Your task to perform on an android device: turn off smart reply in the gmail app Image 0: 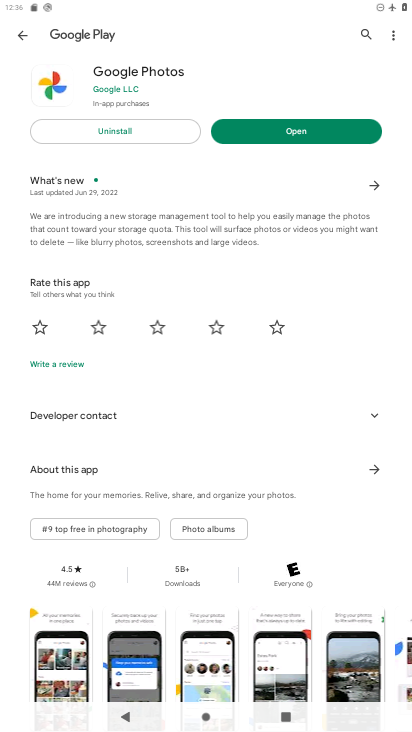
Step 0: press home button
Your task to perform on an android device: turn off smart reply in the gmail app Image 1: 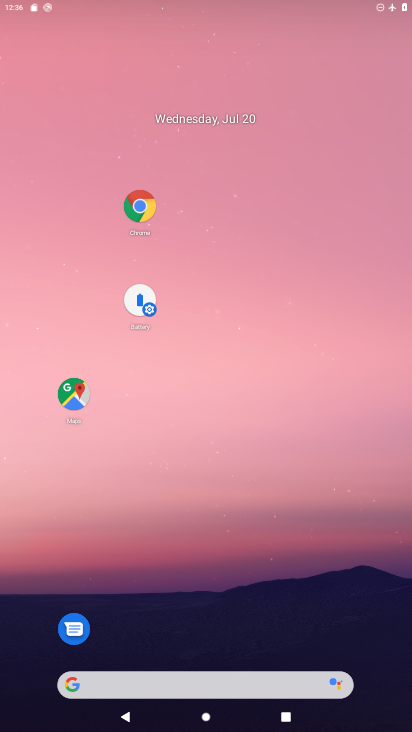
Step 1: drag from (188, 610) to (260, 112)
Your task to perform on an android device: turn off smart reply in the gmail app Image 2: 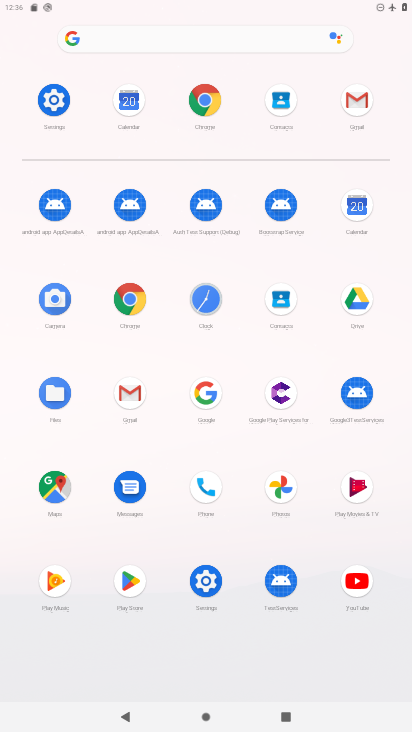
Step 2: click (122, 382)
Your task to perform on an android device: turn off smart reply in the gmail app Image 3: 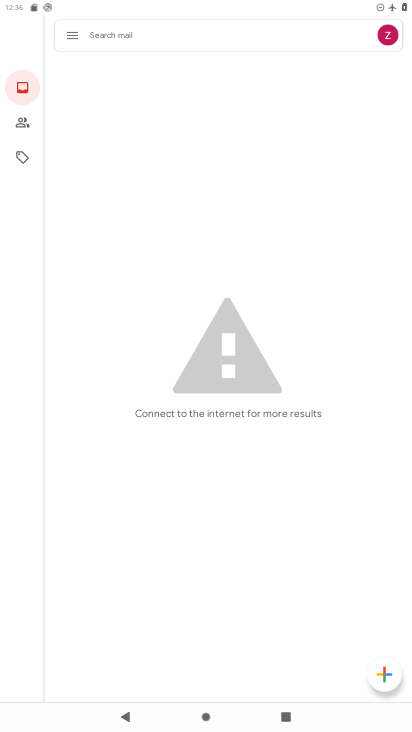
Step 3: click (71, 30)
Your task to perform on an android device: turn off smart reply in the gmail app Image 4: 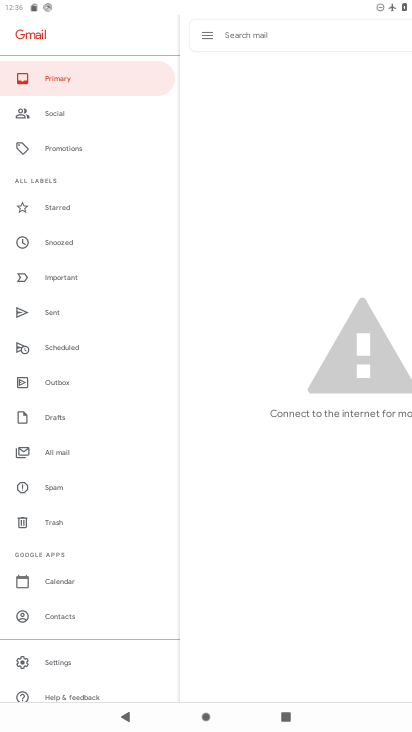
Step 4: click (64, 659)
Your task to perform on an android device: turn off smart reply in the gmail app Image 5: 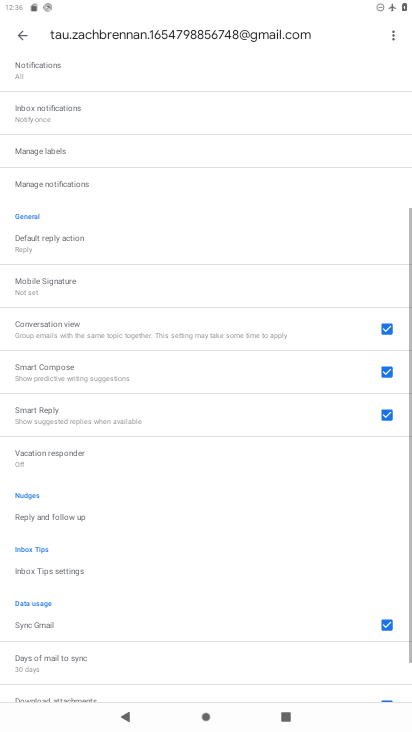
Step 5: drag from (177, 545) to (224, 264)
Your task to perform on an android device: turn off smart reply in the gmail app Image 6: 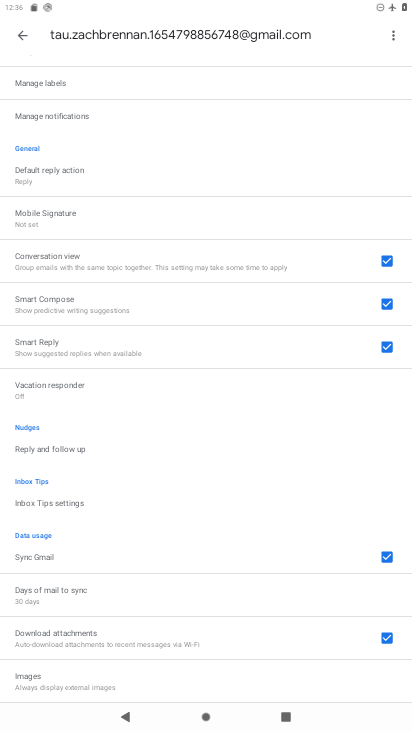
Step 6: drag from (184, 620) to (215, 315)
Your task to perform on an android device: turn off smart reply in the gmail app Image 7: 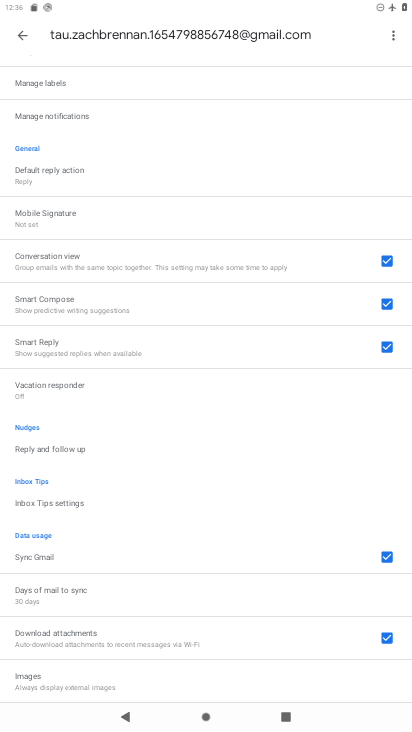
Step 7: click (387, 347)
Your task to perform on an android device: turn off smart reply in the gmail app Image 8: 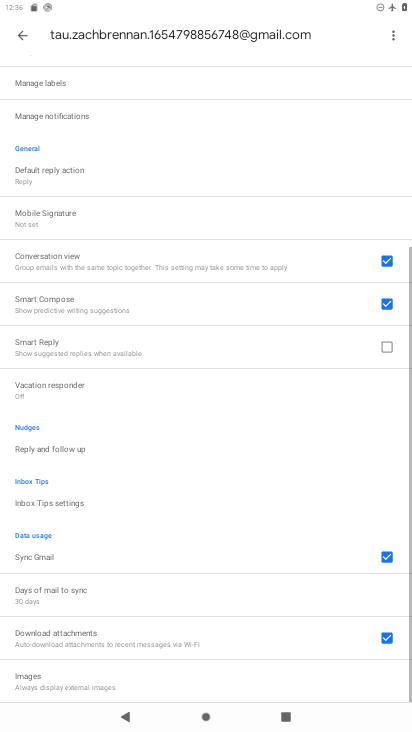
Step 8: task complete